Your task to perform on an android device: Go to Yahoo.com Image 0: 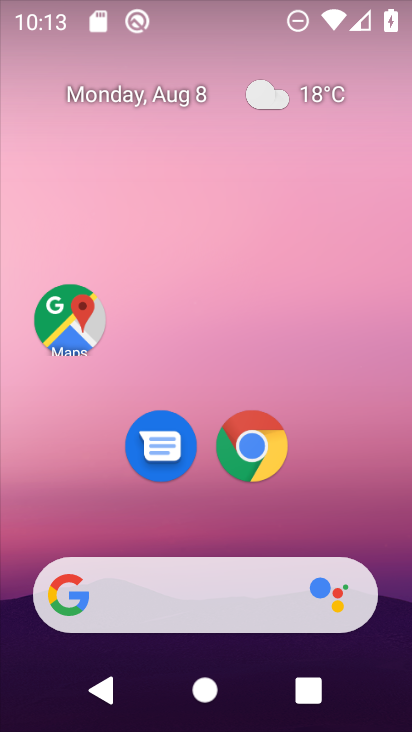
Step 0: click (251, 449)
Your task to perform on an android device: Go to Yahoo.com Image 1: 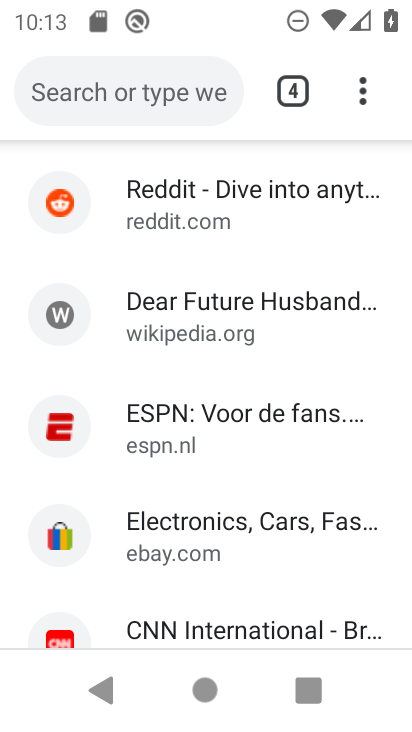
Step 1: click (127, 76)
Your task to perform on an android device: Go to Yahoo.com Image 2: 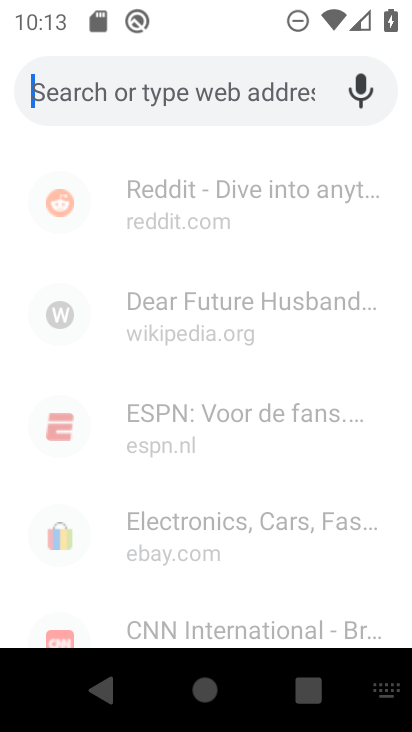
Step 2: type "yahoo.com"
Your task to perform on an android device: Go to Yahoo.com Image 3: 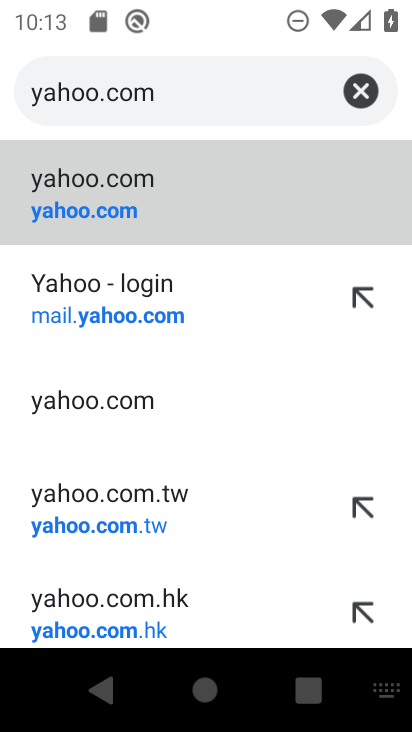
Step 3: click (84, 176)
Your task to perform on an android device: Go to Yahoo.com Image 4: 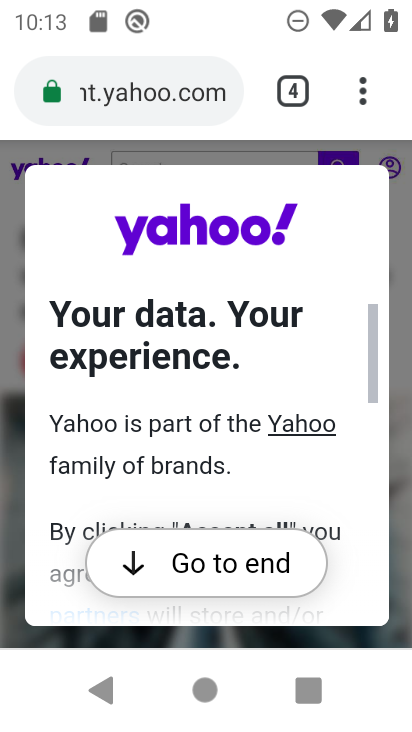
Step 4: click (131, 562)
Your task to perform on an android device: Go to Yahoo.com Image 5: 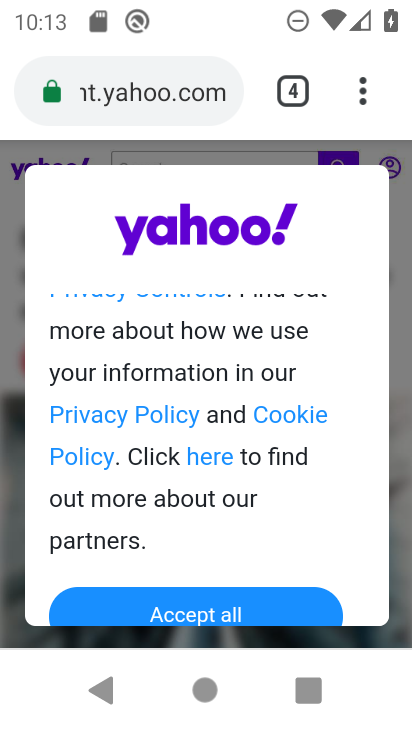
Step 5: click (202, 604)
Your task to perform on an android device: Go to Yahoo.com Image 6: 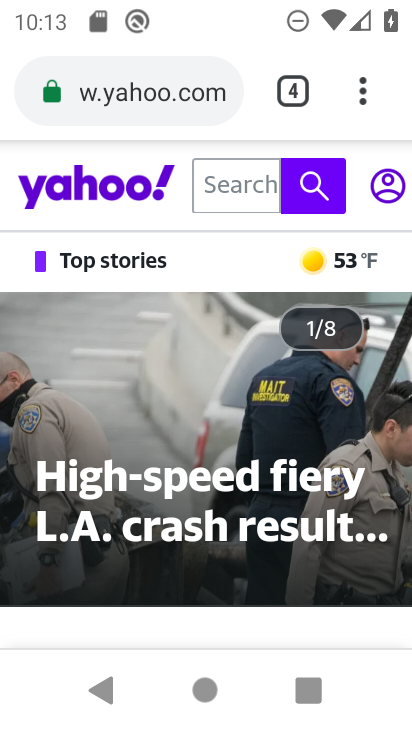
Step 6: task complete